Your task to perform on an android device: Open Google Chrome and open the bookmarks view Image 0: 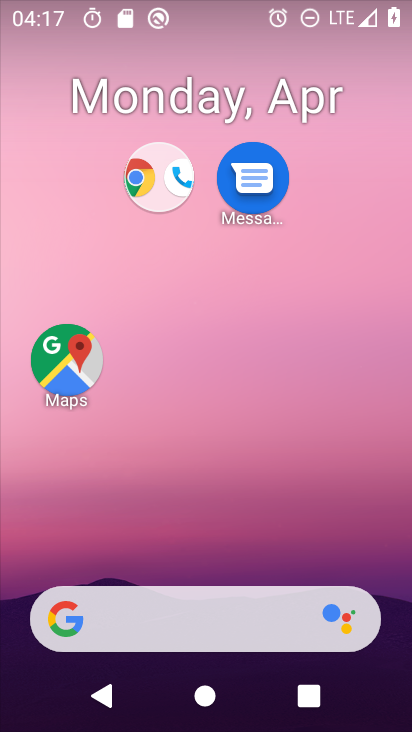
Step 0: drag from (212, 577) to (210, 72)
Your task to perform on an android device: Open Google Chrome and open the bookmarks view Image 1: 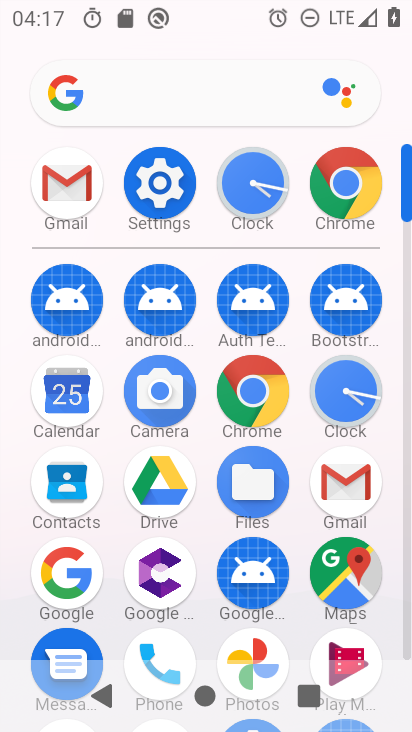
Step 1: click (255, 395)
Your task to perform on an android device: Open Google Chrome and open the bookmarks view Image 2: 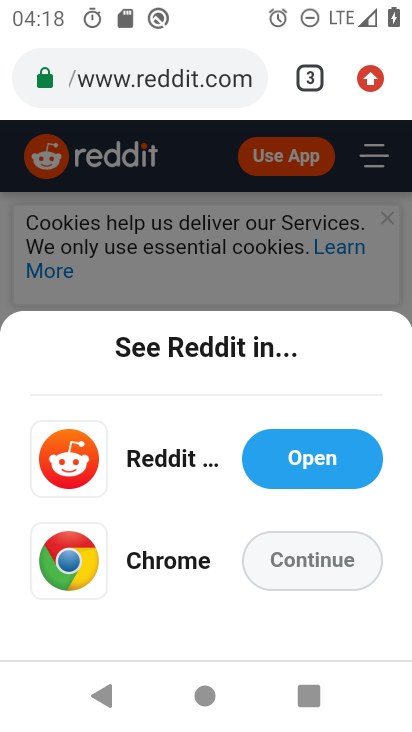
Step 2: click (117, 261)
Your task to perform on an android device: Open Google Chrome and open the bookmarks view Image 3: 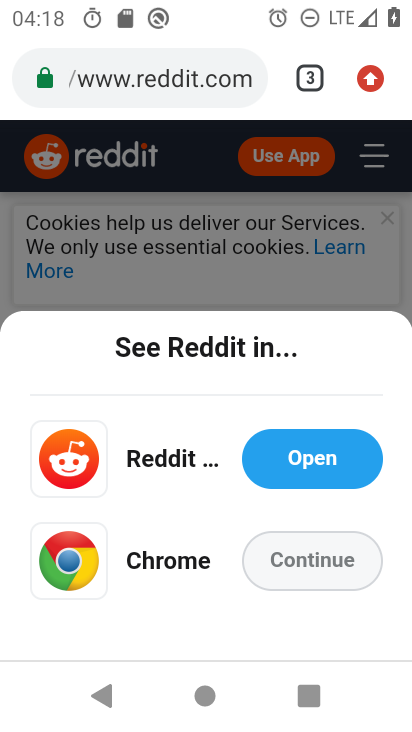
Step 3: click (367, 74)
Your task to perform on an android device: Open Google Chrome and open the bookmarks view Image 4: 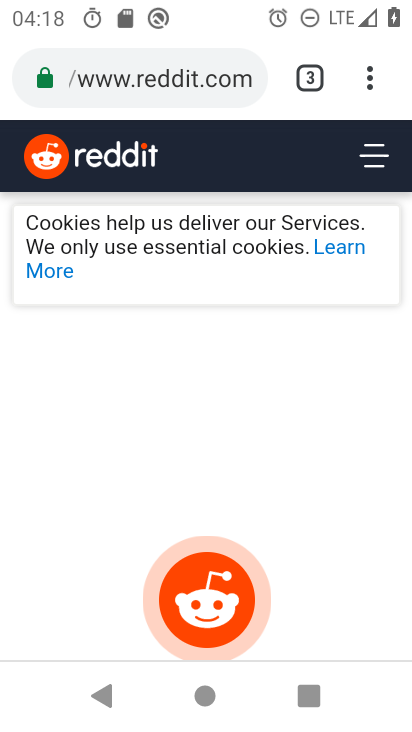
Step 4: task complete